Your task to perform on an android device: check android version Image 0: 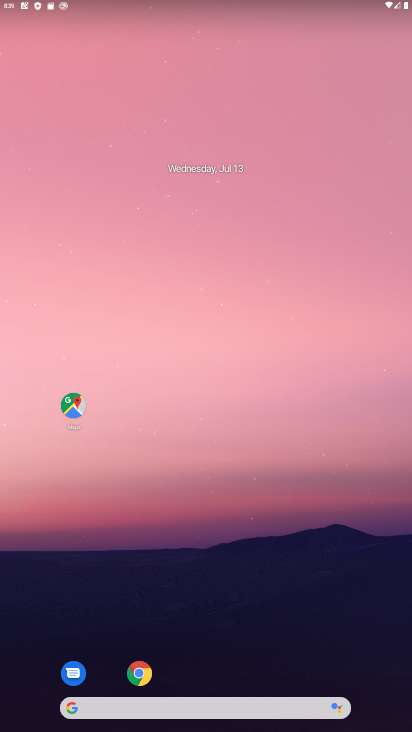
Step 0: drag from (206, 671) to (279, 75)
Your task to perform on an android device: check android version Image 1: 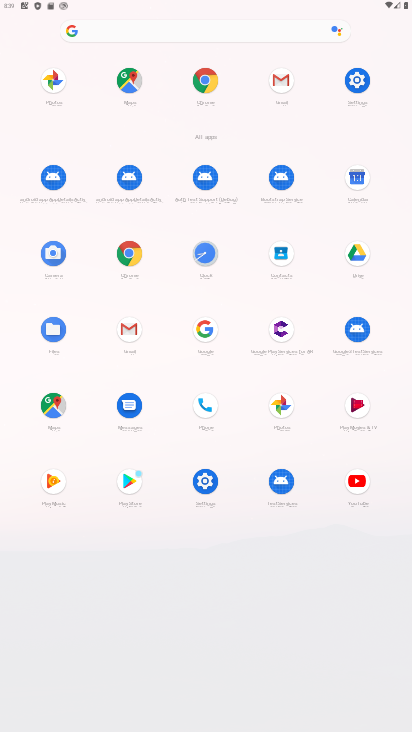
Step 1: click (358, 75)
Your task to perform on an android device: check android version Image 2: 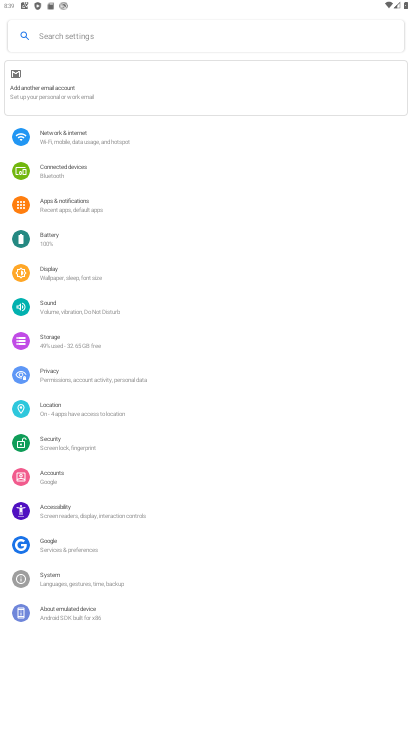
Step 2: click (80, 620)
Your task to perform on an android device: check android version Image 3: 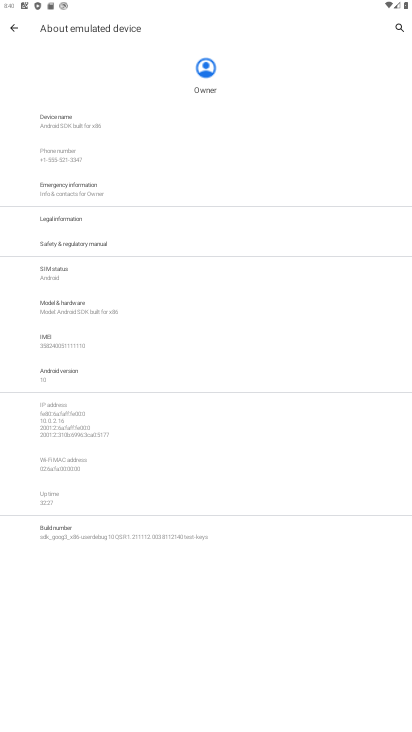
Step 3: click (82, 383)
Your task to perform on an android device: check android version Image 4: 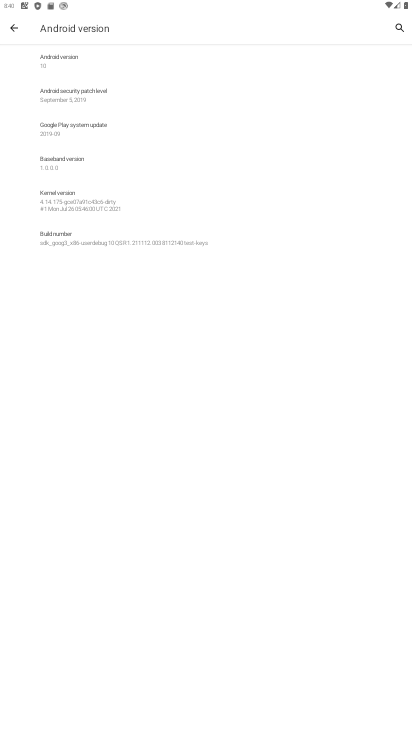
Step 4: task complete